Your task to perform on an android device: turn on priority inbox in the gmail app Image 0: 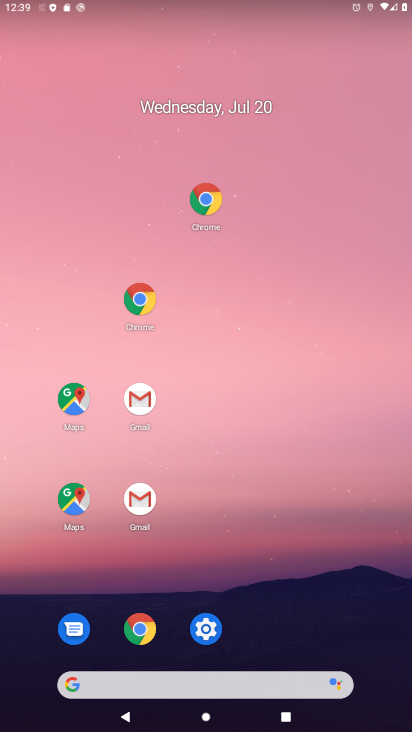
Step 0: drag from (235, 497) to (223, 280)
Your task to perform on an android device: turn on priority inbox in the gmail app Image 1: 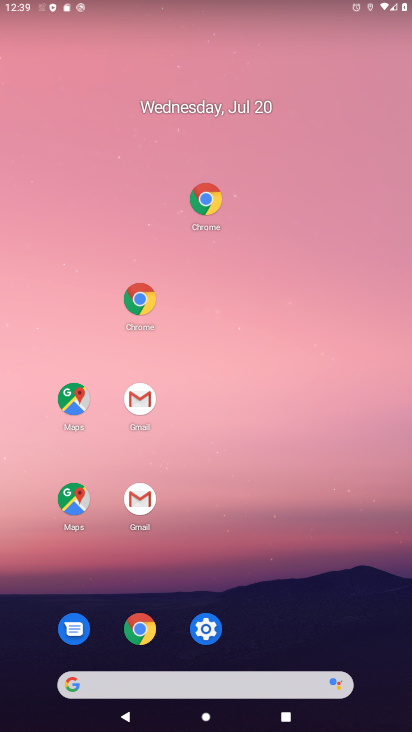
Step 1: drag from (230, 480) to (228, 146)
Your task to perform on an android device: turn on priority inbox in the gmail app Image 2: 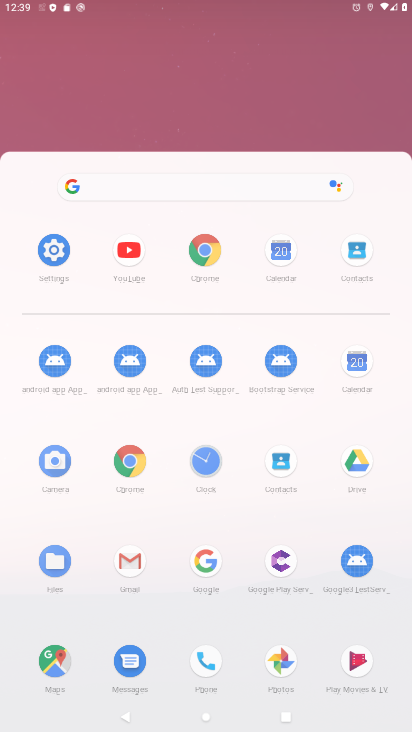
Step 2: drag from (241, 497) to (202, 91)
Your task to perform on an android device: turn on priority inbox in the gmail app Image 3: 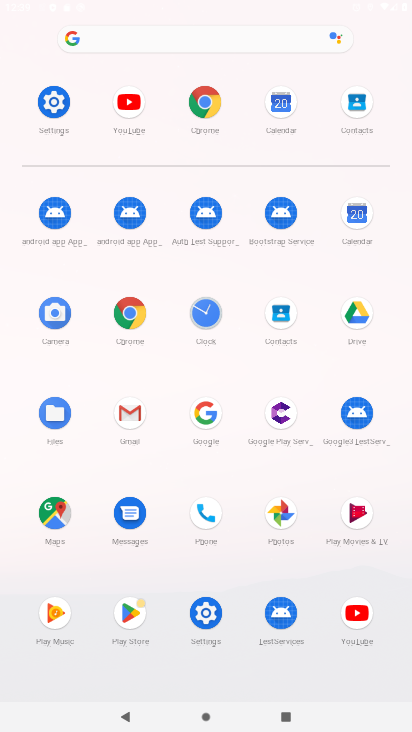
Step 3: drag from (209, 493) to (209, 212)
Your task to perform on an android device: turn on priority inbox in the gmail app Image 4: 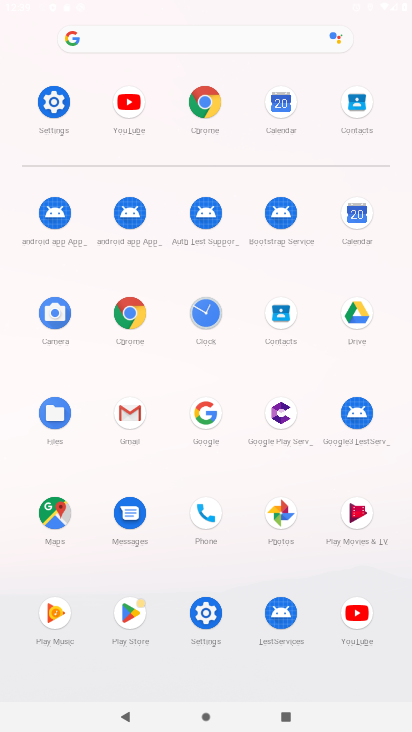
Step 4: click (131, 416)
Your task to perform on an android device: turn on priority inbox in the gmail app Image 5: 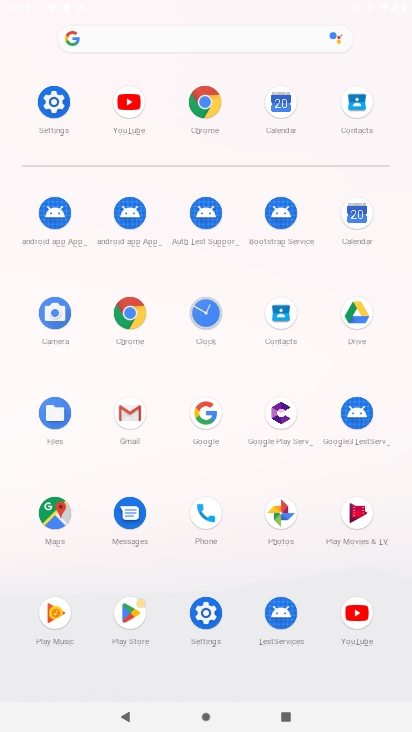
Step 5: click (132, 417)
Your task to perform on an android device: turn on priority inbox in the gmail app Image 6: 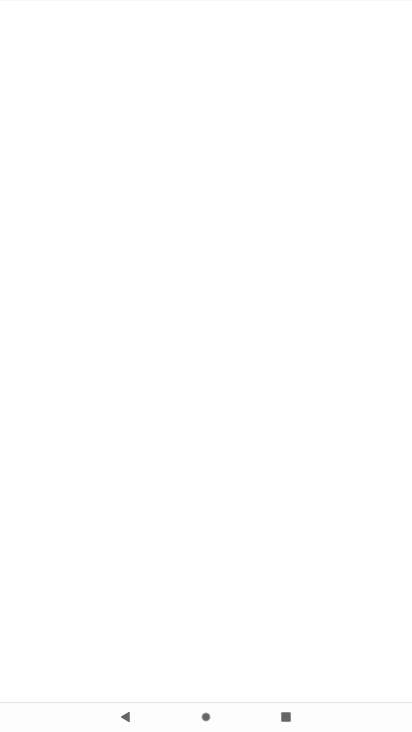
Step 6: click (133, 417)
Your task to perform on an android device: turn on priority inbox in the gmail app Image 7: 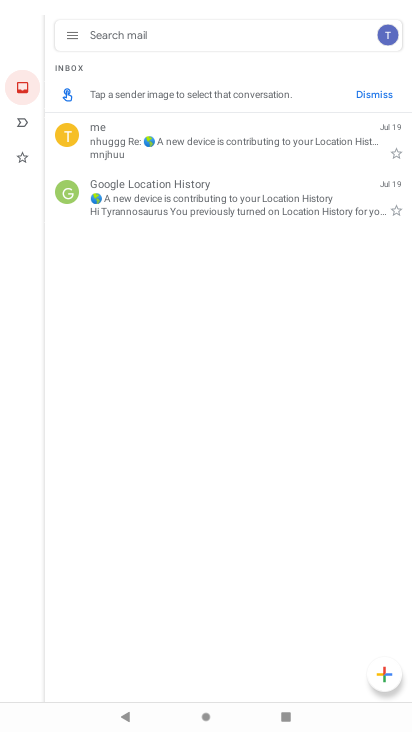
Step 7: click (67, 34)
Your task to perform on an android device: turn on priority inbox in the gmail app Image 8: 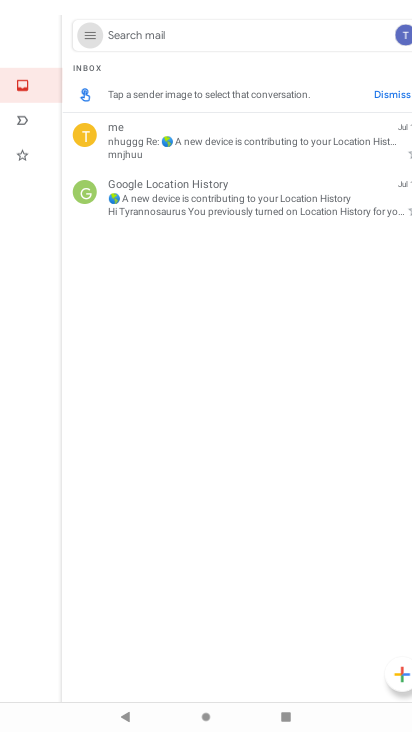
Step 8: click (67, 34)
Your task to perform on an android device: turn on priority inbox in the gmail app Image 9: 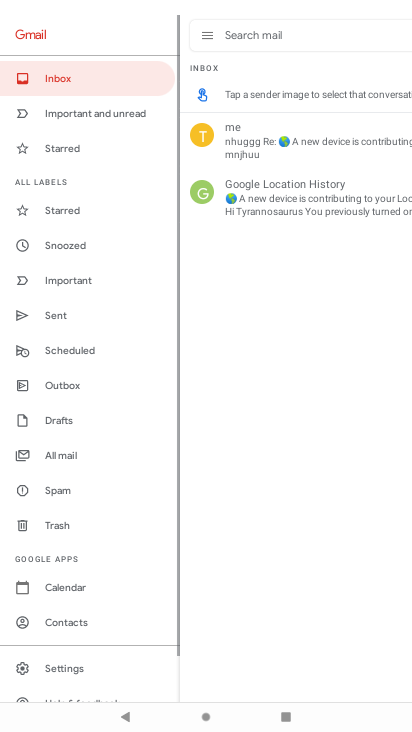
Step 9: click (67, 34)
Your task to perform on an android device: turn on priority inbox in the gmail app Image 10: 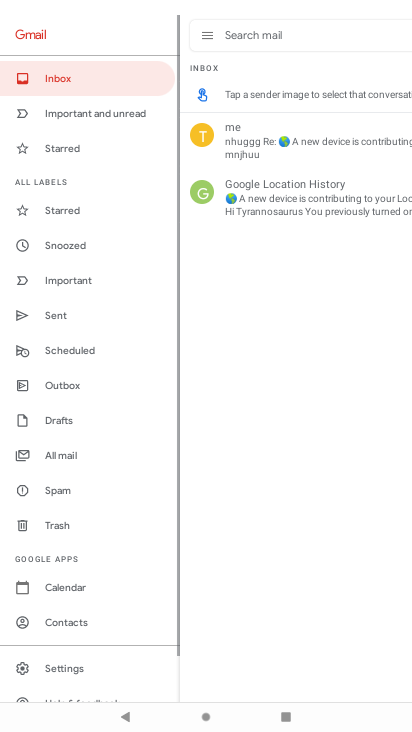
Step 10: click (67, 34)
Your task to perform on an android device: turn on priority inbox in the gmail app Image 11: 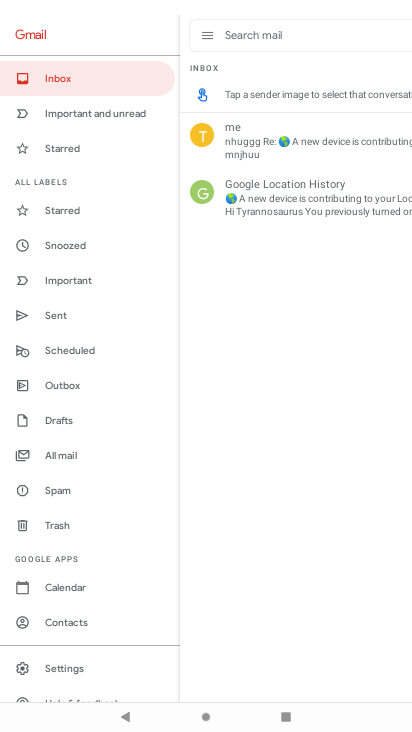
Step 11: drag from (98, 436) to (112, 139)
Your task to perform on an android device: turn on priority inbox in the gmail app Image 12: 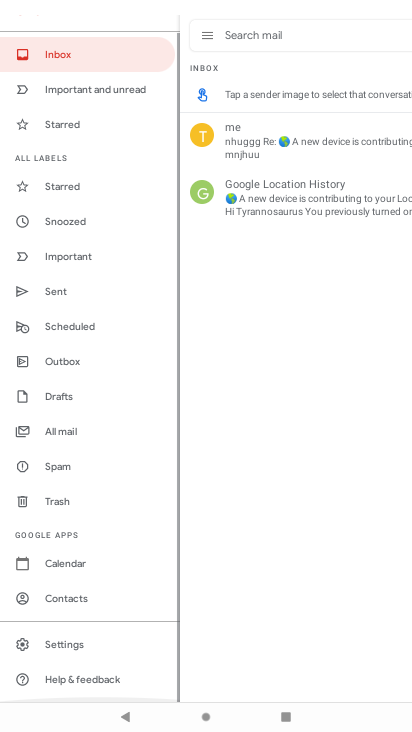
Step 12: drag from (85, 499) to (80, 180)
Your task to perform on an android device: turn on priority inbox in the gmail app Image 13: 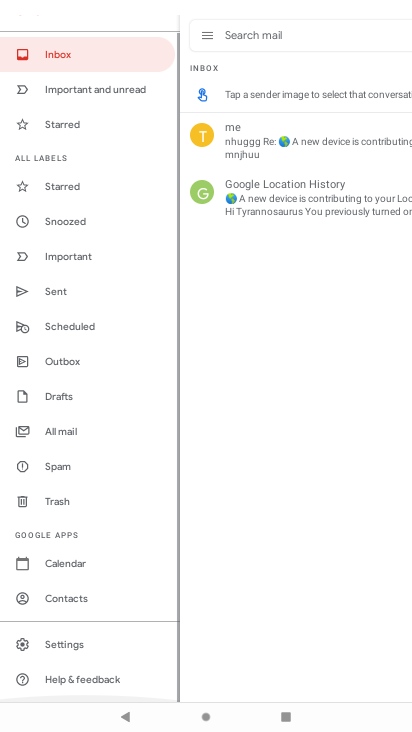
Step 13: drag from (60, 591) to (61, 205)
Your task to perform on an android device: turn on priority inbox in the gmail app Image 14: 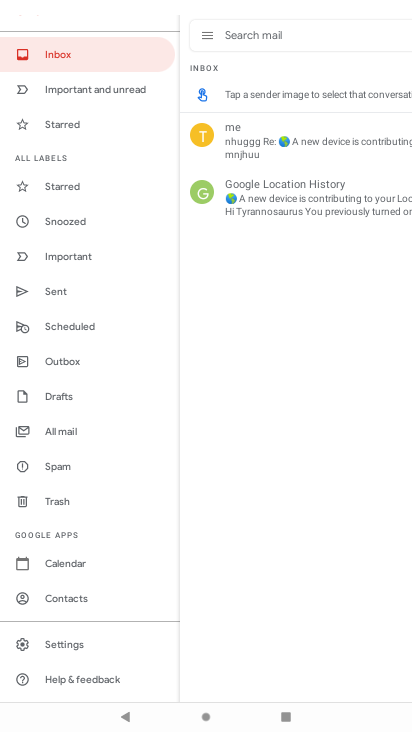
Step 14: click (79, 646)
Your task to perform on an android device: turn on priority inbox in the gmail app Image 15: 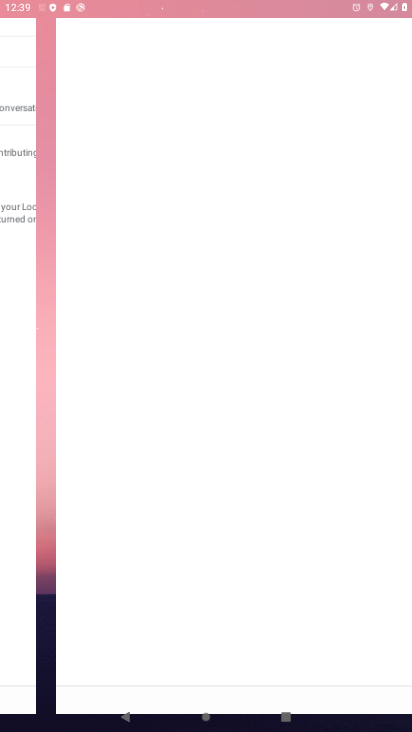
Step 15: click (70, 642)
Your task to perform on an android device: turn on priority inbox in the gmail app Image 16: 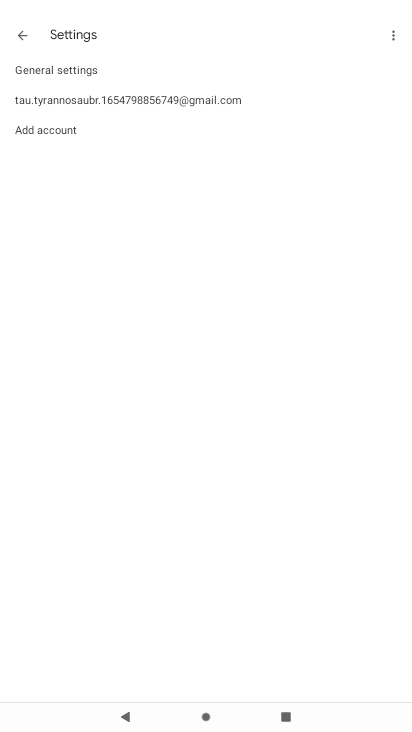
Step 16: click (70, 642)
Your task to perform on an android device: turn on priority inbox in the gmail app Image 17: 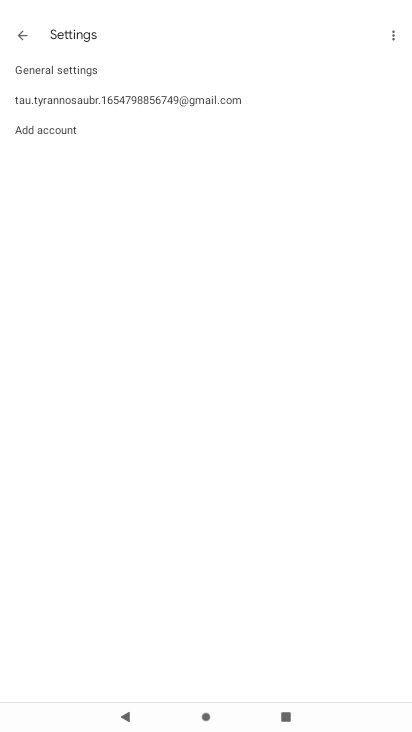
Step 17: click (70, 642)
Your task to perform on an android device: turn on priority inbox in the gmail app Image 18: 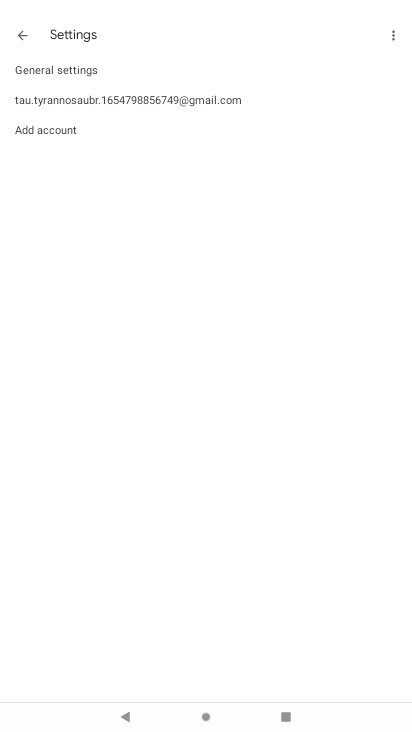
Step 18: click (92, 100)
Your task to perform on an android device: turn on priority inbox in the gmail app Image 19: 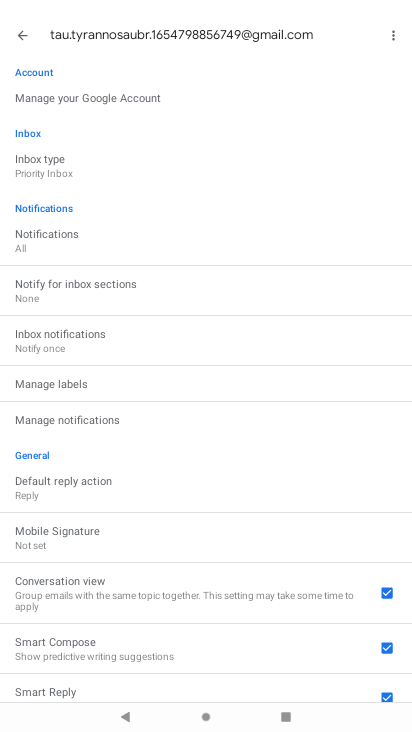
Step 19: task complete